Your task to perform on an android device: toggle notification dots Image 0: 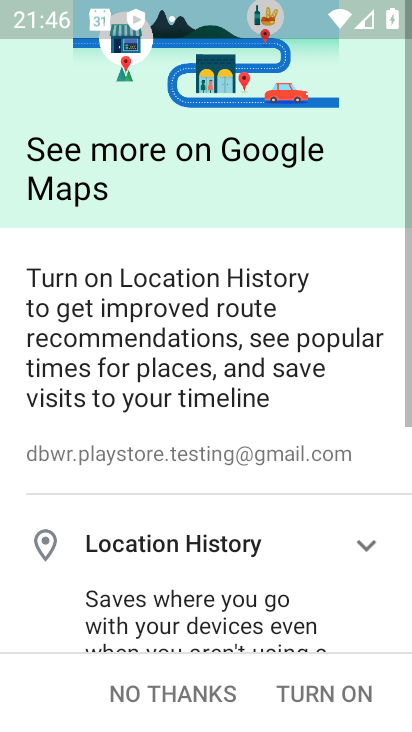
Step 0: press home button
Your task to perform on an android device: toggle notification dots Image 1: 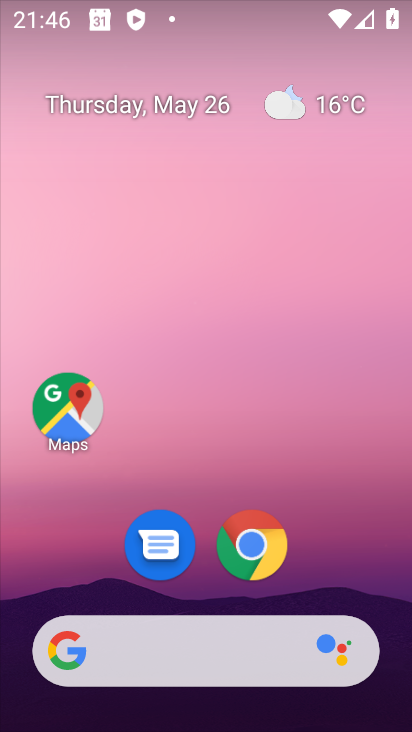
Step 1: drag from (359, 572) to (235, 92)
Your task to perform on an android device: toggle notification dots Image 2: 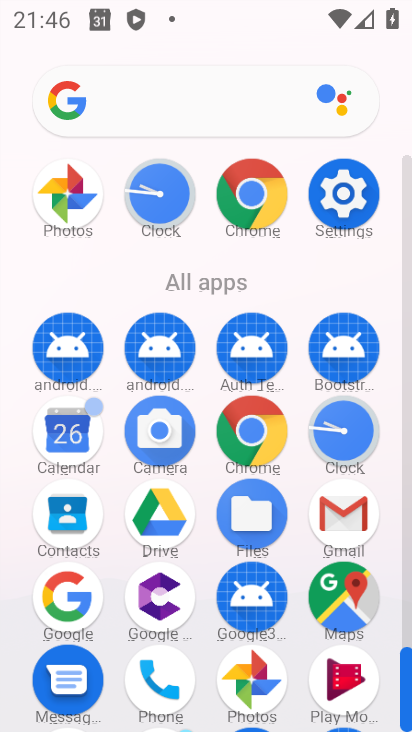
Step 2: click (337, 198)
Your task to perform on an android device: toggle notification dots Image 3: 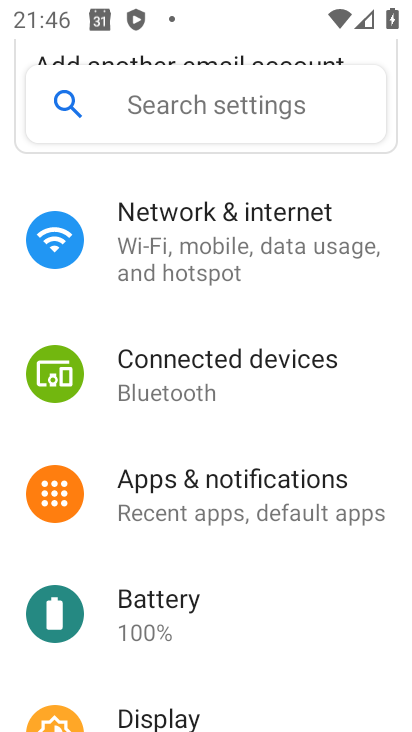
Step 3: drag from (252, 594) to (290, 213)
Your task to perform on an android device: toggle notification dots Image 4: 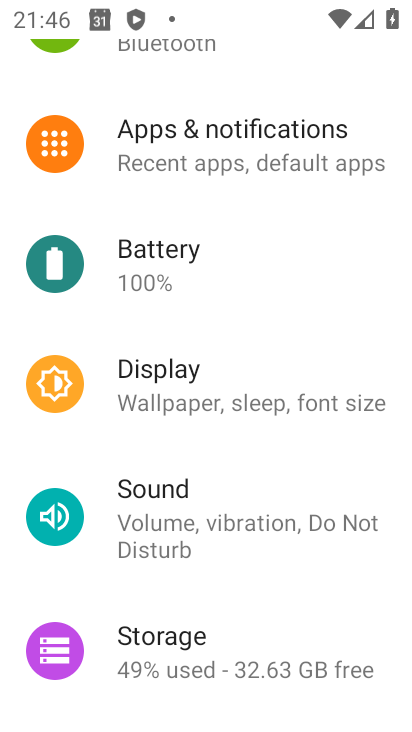
Step 4: click (178, 154)
Your task to perform on an android device: toggle notification dots Image 5: 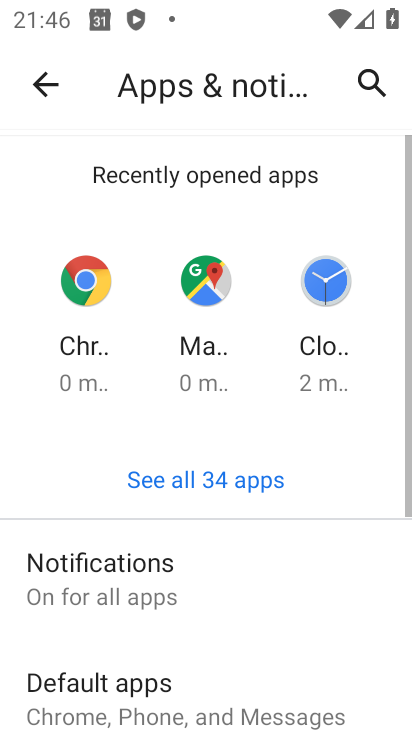
Step 5: click (99, 595)
Your task to perform on an android device: toggle notification dots Image 6: 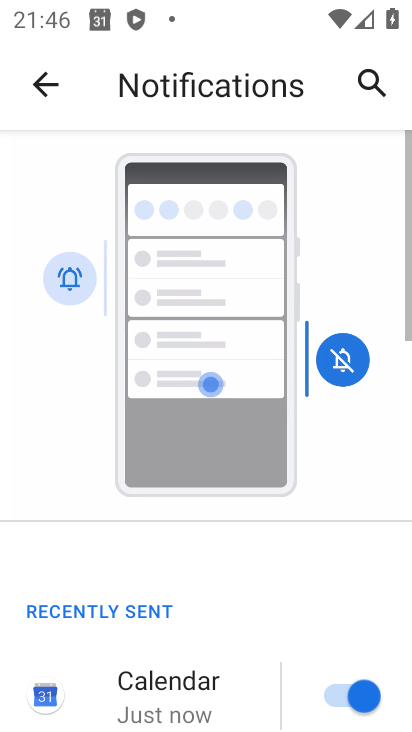
Step 6: drag from (305, 605) to (321, 96)
Your task to perform on an android device: toggle notification dots Image 7: 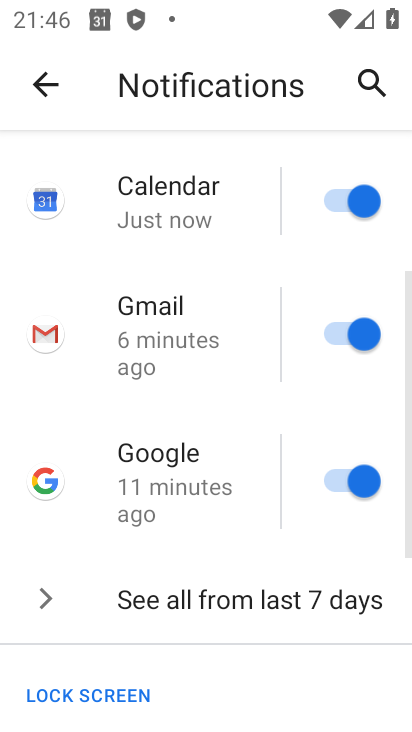
Step 7: drag from (275, 704) to (294, 32)
Your task to perform on an android device: toggle notification dots Image 8: 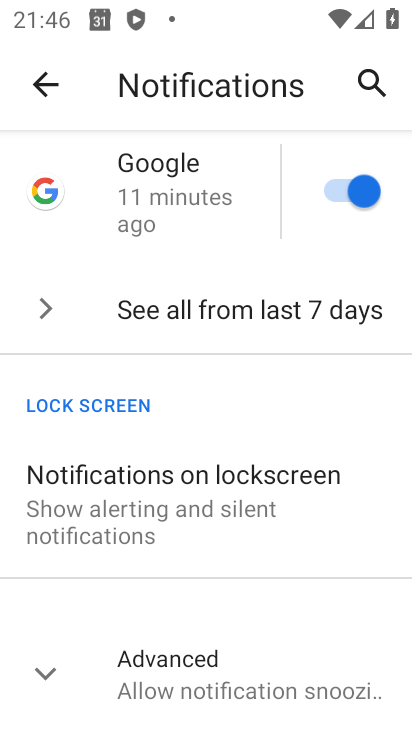
Step 8: click (146, 599)
Your task to perform on an android device: toggle notification dots Image 9: 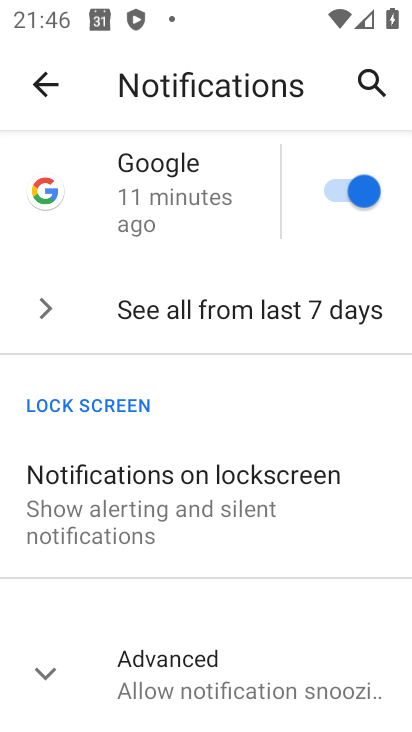
Step 9: click (168, 689)
Your task to perform on an android device: toggle notification dots Image 10: 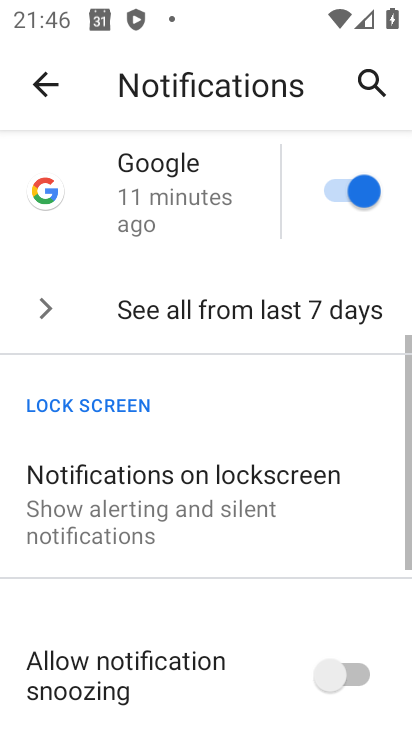
Step 10: drag from (177, 683) to (219, 181)
Your task to perform on an android device: toggle notification dots Image 11: 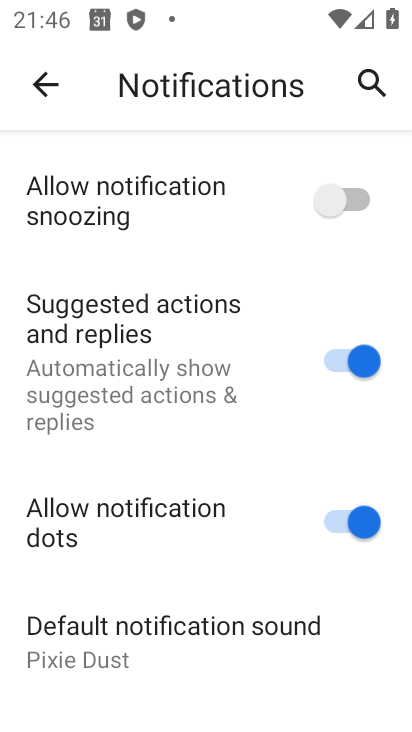
Step 11: click (341, 524)
Your task to perform on an android device: toggle notification dots Image 12: 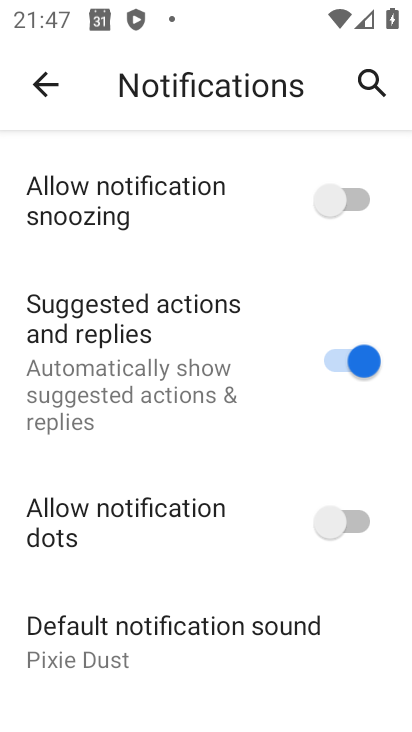
Step 12: task complete